Your task to perform on an android device: Empty the shopping cart on target. Search for razer huntsman on target, select the first entry, and add it to the cart. Image 0: 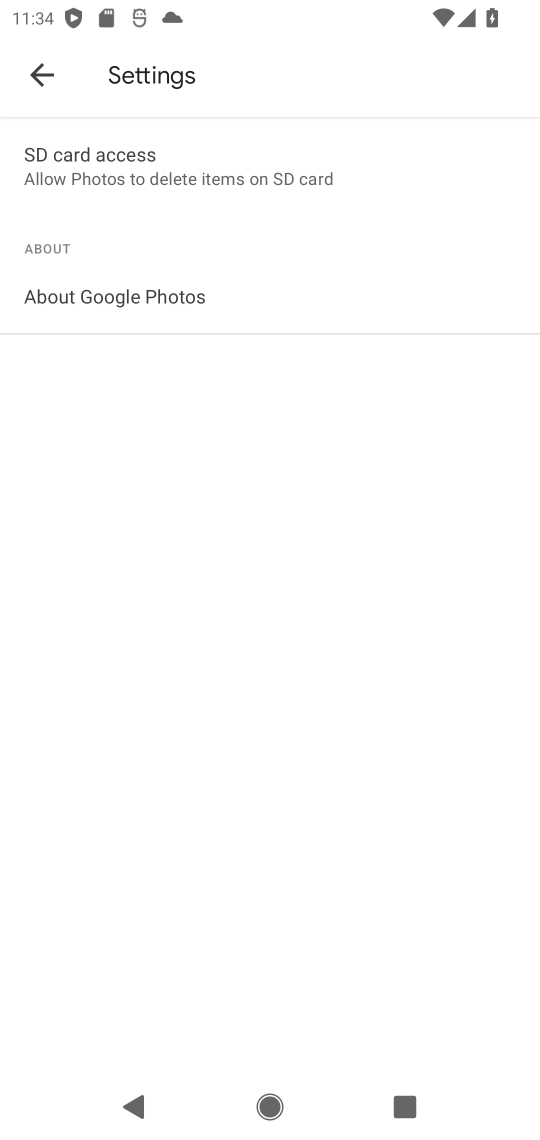
Step 0: press home button
Your task to perform on an android device: Empty the shopping cart on target. Search for razer huntsman on target, select the first entry, and add it to the cart. Image 1: 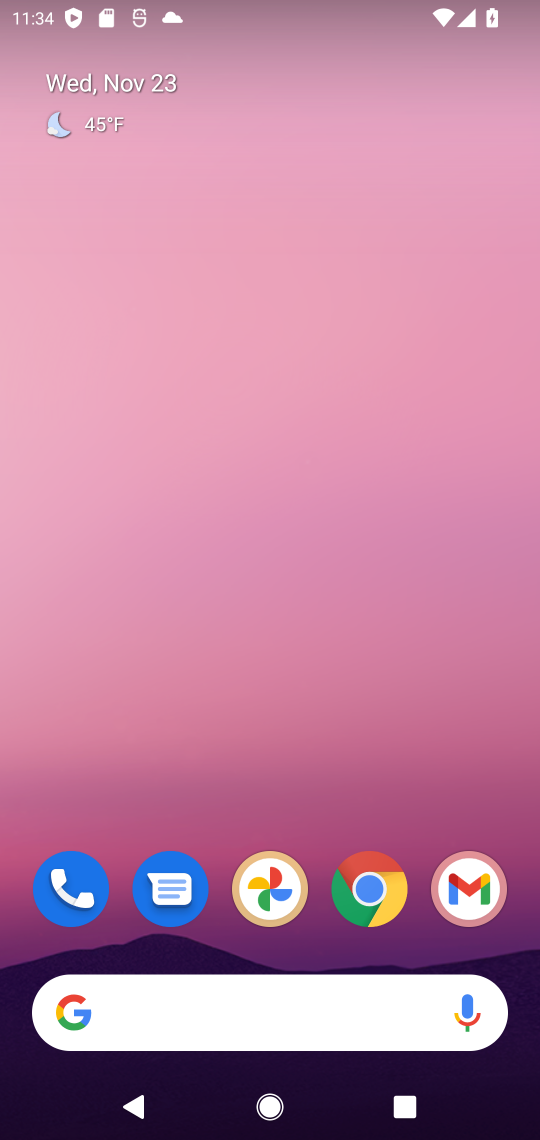
Step 1: click (373, 886)
Your task to perform on an android device: Empty the shopping cart on target. Search for razer huntsman on target, select the first entry, and add it to the cart. Image 2: 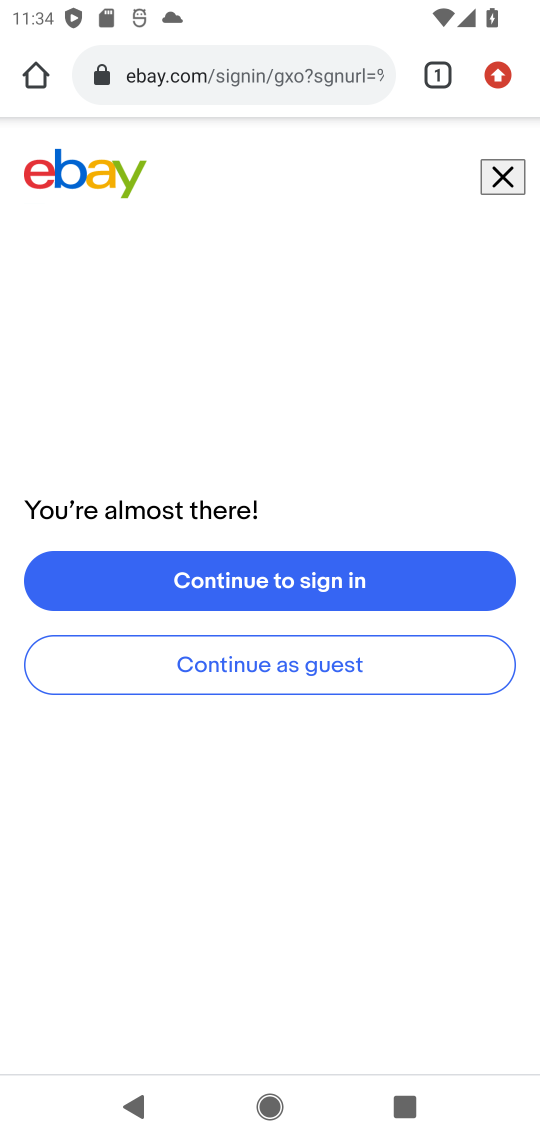
Step 2: click (156, 80)
Your task to perform on an android device: Empty the shopping cart on target. Search for razer huntsman on target, select the first entry, and add it to the cart. Image 3: 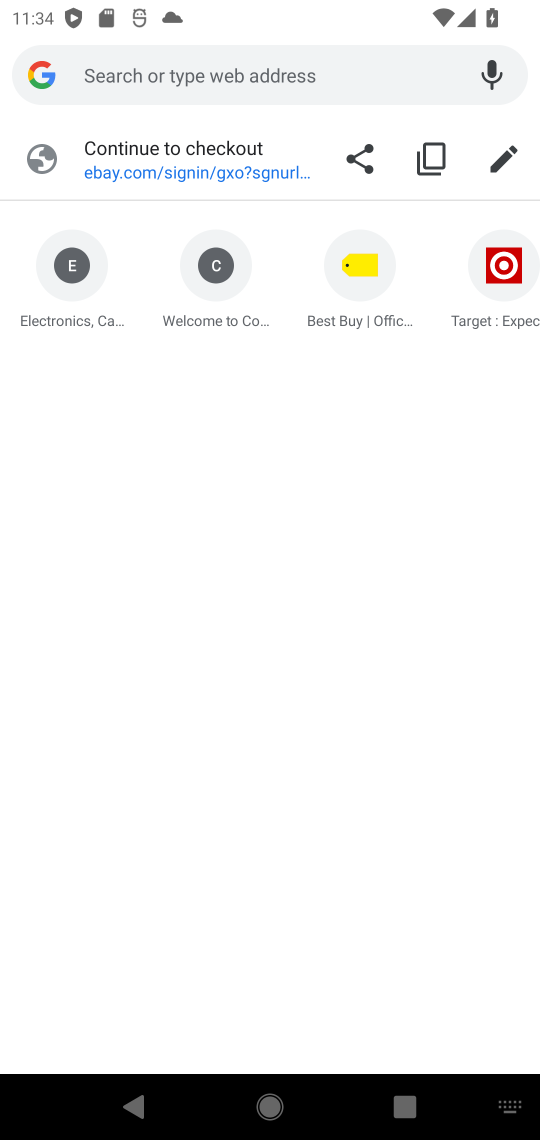
Step 3: click (465, 286)
Your task to perform on an android device: Empty the shopping cart on target. Search for razer huntsman on target, select the first entry, and add it to the cart. Image 4: 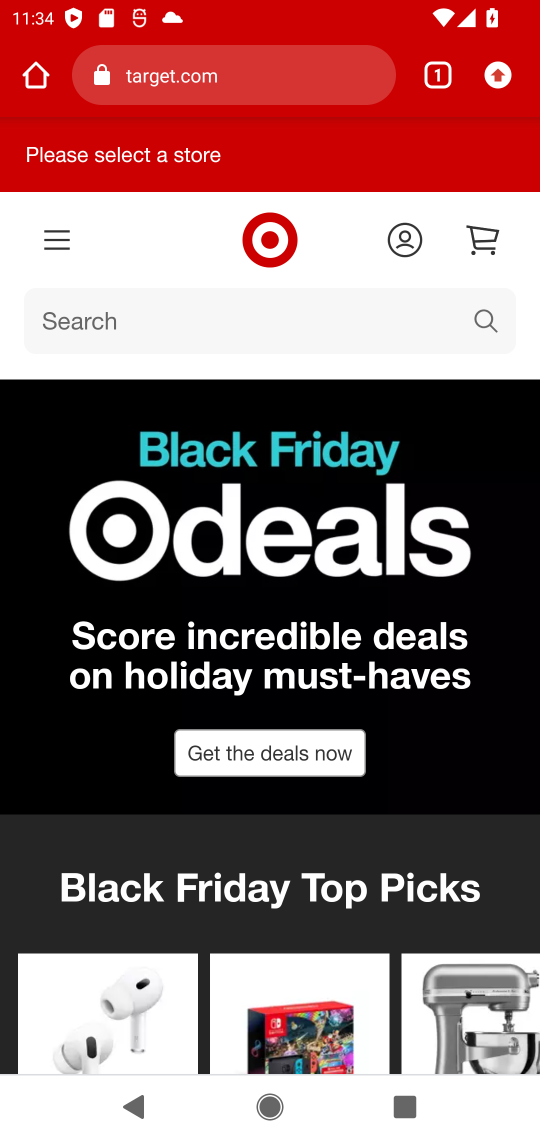
Step 4: click (484, 220)
Your task to perform on an android device: Empty the shopping cart on target. Search for razer huntsman on target, select the first entry, and add it to the cart. Image 5: 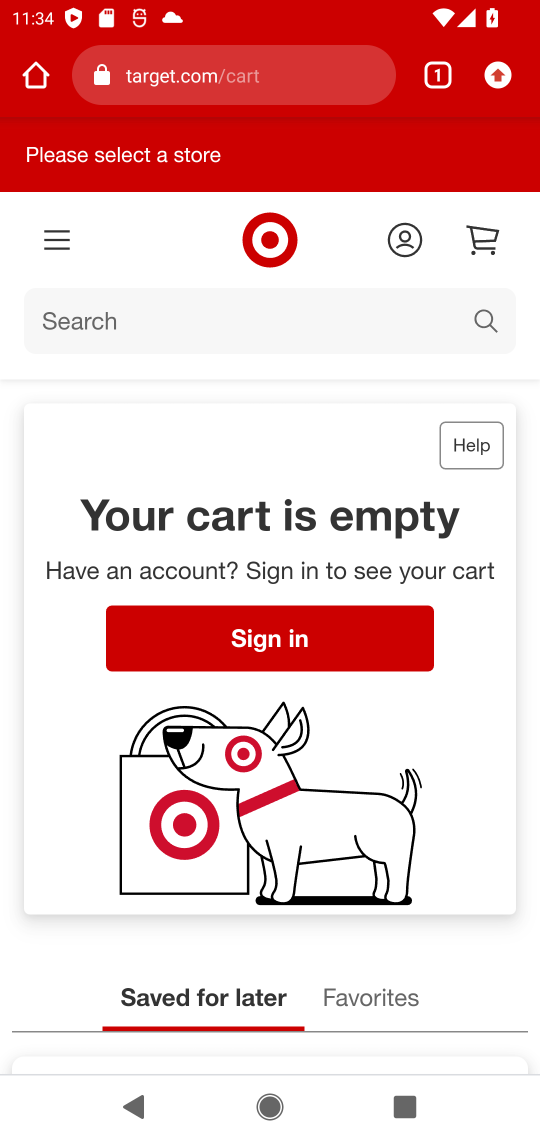
Step 5: click (485, 317)
Your task to perform on an android device: Empty the shopping cart on target. Search for razer huntsman on target, select the first entry, and add it to the cart. Image 6: 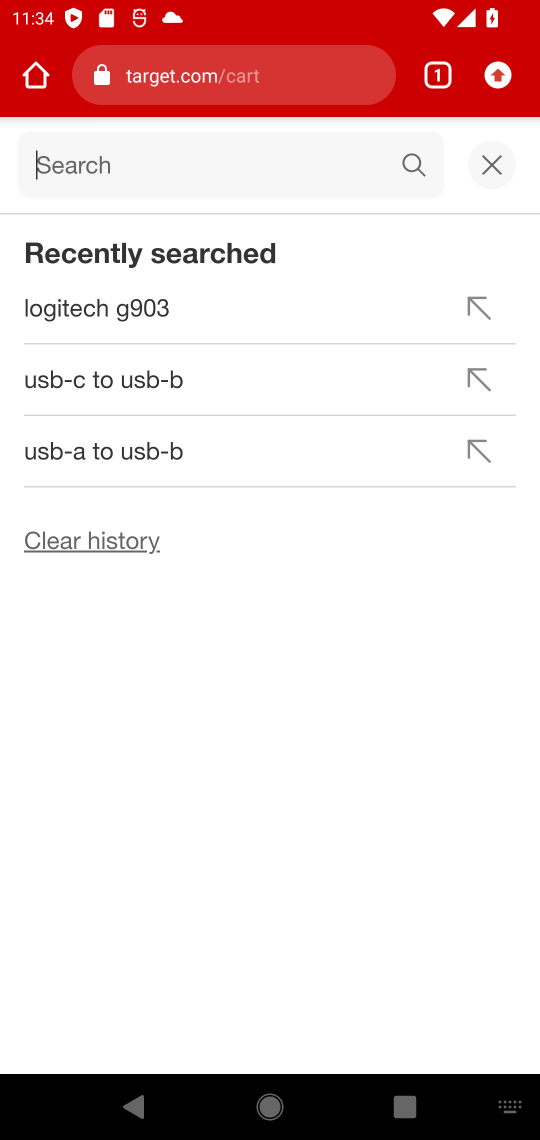
Step 6: type "razer huntsman"
Your task to perform on an android device: Empty the shopping cart on target. Search for razer huntsman on target, select the first entry, and add it to the cart. Image 7: 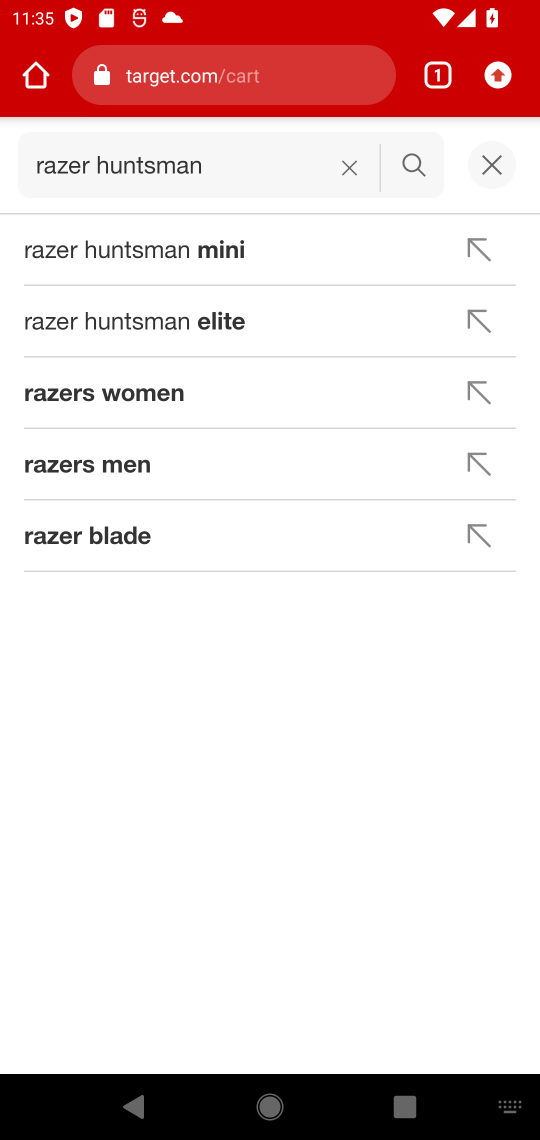
Step 7: click (416, 164)
Your task to perform on an android device: Empty the shopping cart on target. Search for razer huntsman on target, select the first entry, and add it to the cart. Image 8: 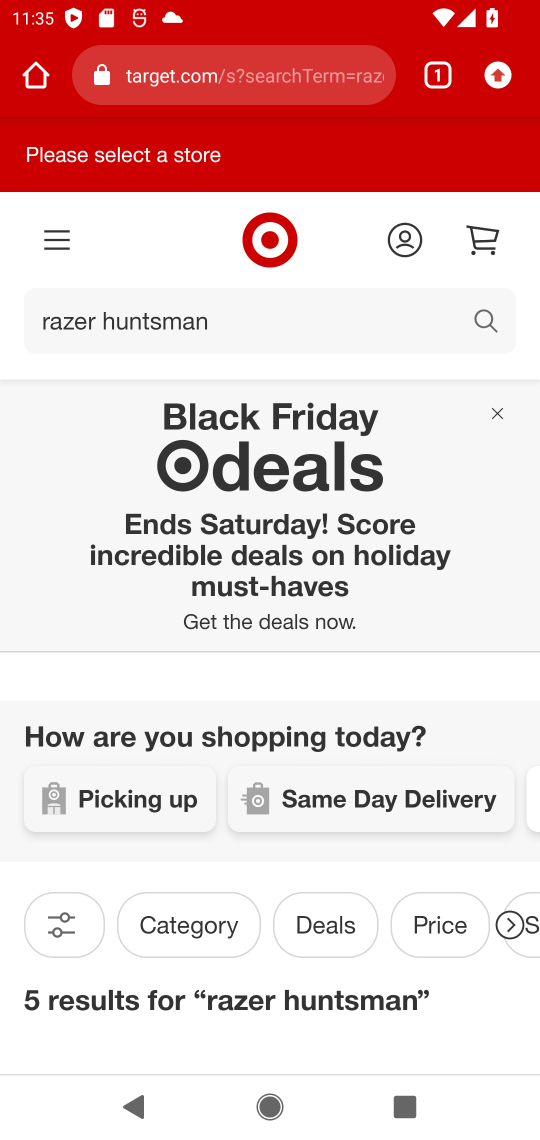
Step 8: task complete